Your task to perform on an android device: Open Chrome and go to settings Image 0: 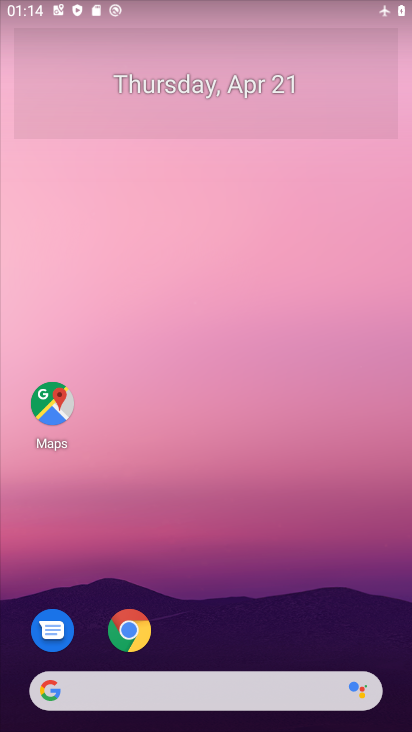
Step 0: click (136, 648)
Your task to perform on an android device: Open Chrome and go to settings Image 1: 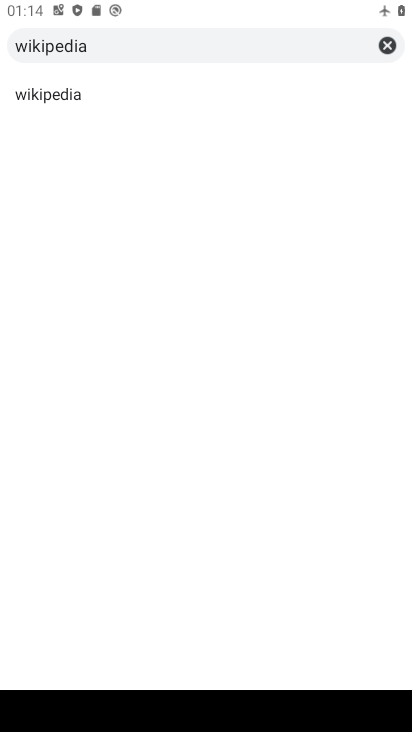
Step 1: click (384, 43)
Your task to perform on an android device: Open Chrome and go to settings Image 2: 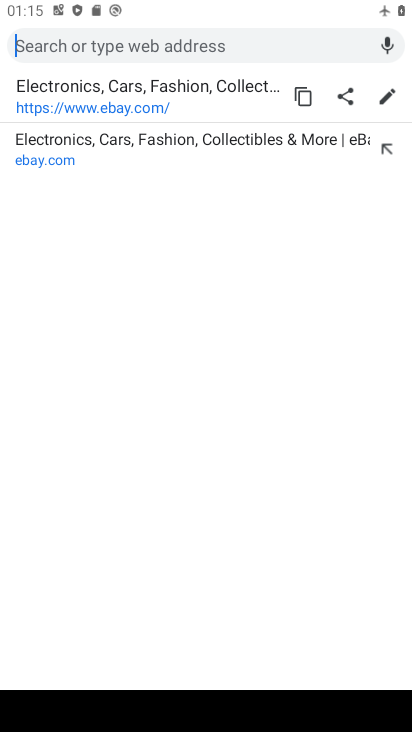
Step 2: click (288, 280)
Your task to perform on an android device: Open Chrome and go to settings Image 3: 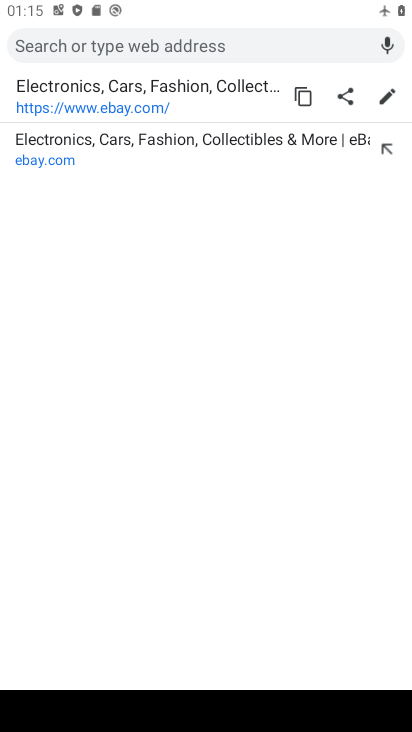
Step 3: press back button
Your task to perform on an android device: Open Chrome and go to settings Image 4: 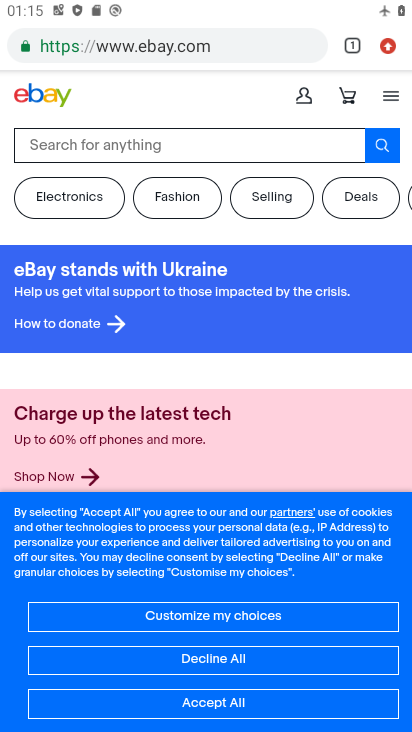
Step 4: click (386, 46)
Your task to perform on an android device: Open Chrome and go to settings Image 5: 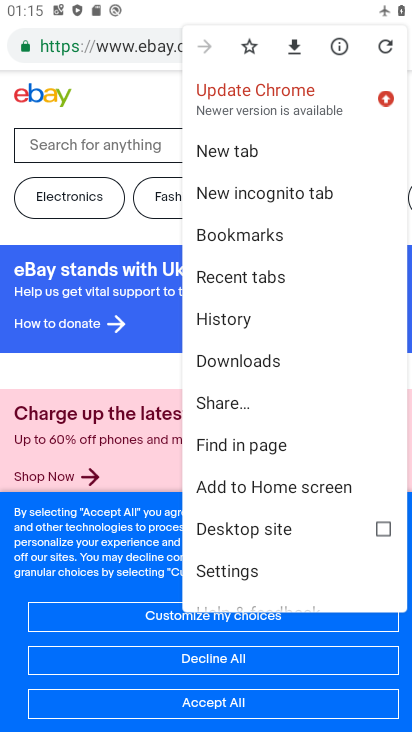
Step 5: click (254, 559)
Your task to perform on an android device: Open Chrome and go to settings Image 6: 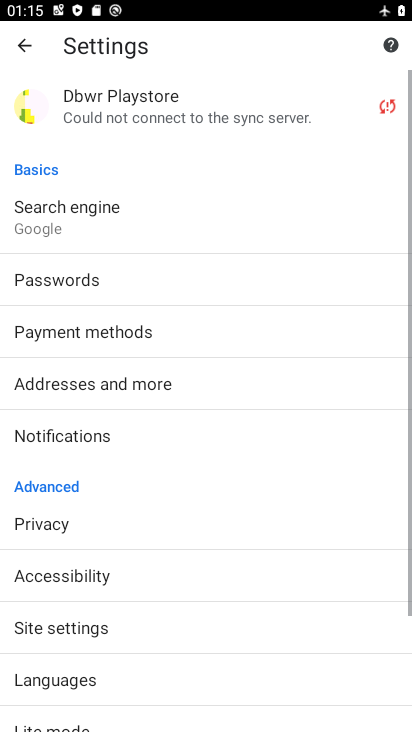
Step 6: task complete